Your task to perform on an android device: manage bookmarks in the chrome app Image 0: 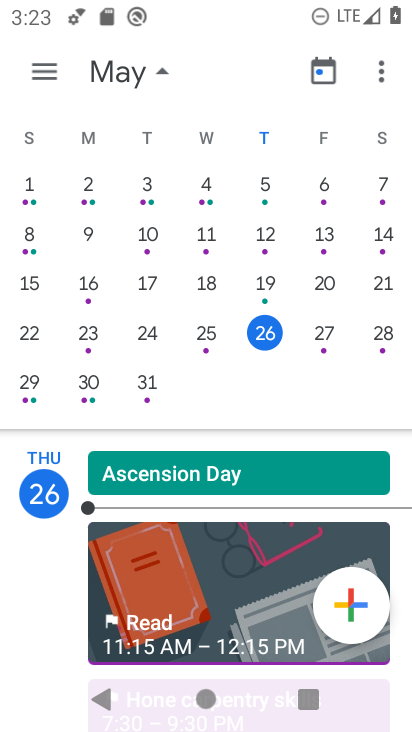
Step 0: press home button
Your task to perform on an android device: manage bookmarks in the chrome app Image 1: 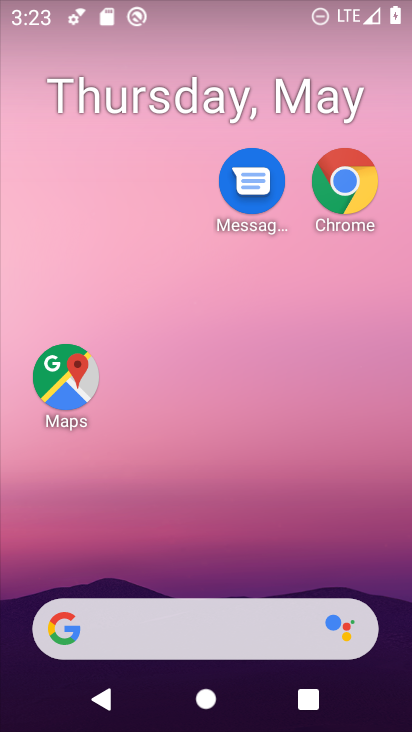
Step 1: drag from (280, 597) to (304, 56)
Your task to perform on an android device: manage bookmarks in the chrome app Image 2: 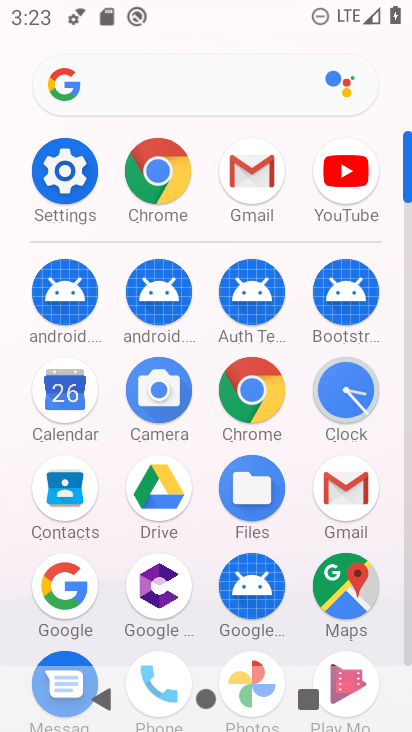
Step 2: click (252, 404)
Your task to perform on an android device: manage bookmarks in the chrome app Image 3: 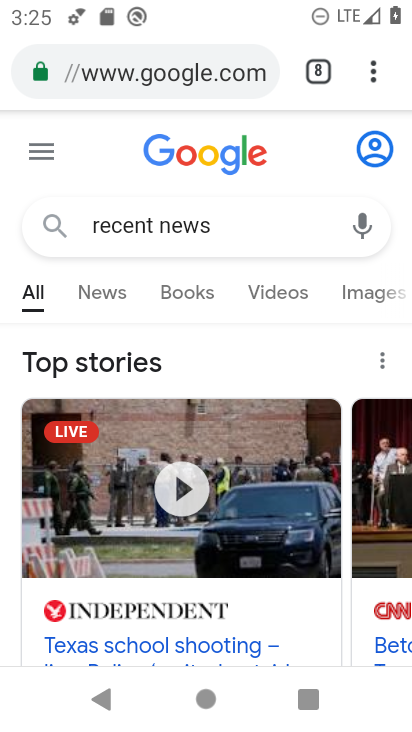
Step 3: task complete